Your task to perform on an android device: Open eBay Image 0: 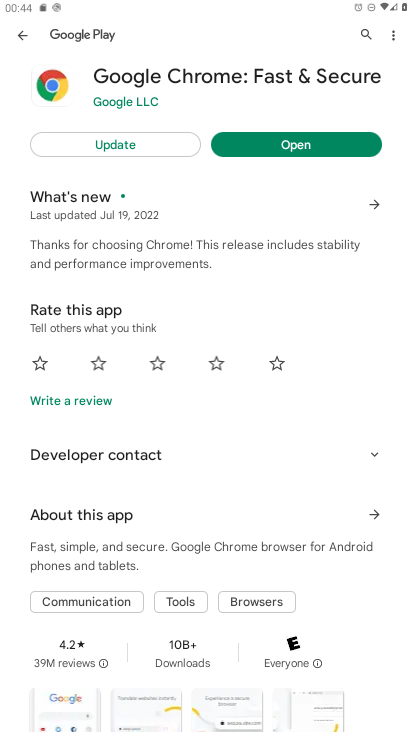
Step 0: press home button
Your task to perform on an android device: Open eBay Image 1: 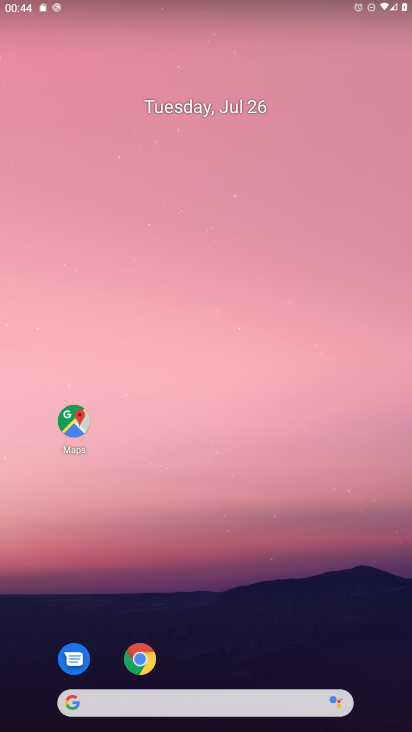
Step 1: click (144, 654)
Your task to perform on an android device: Open eBay Image 2: 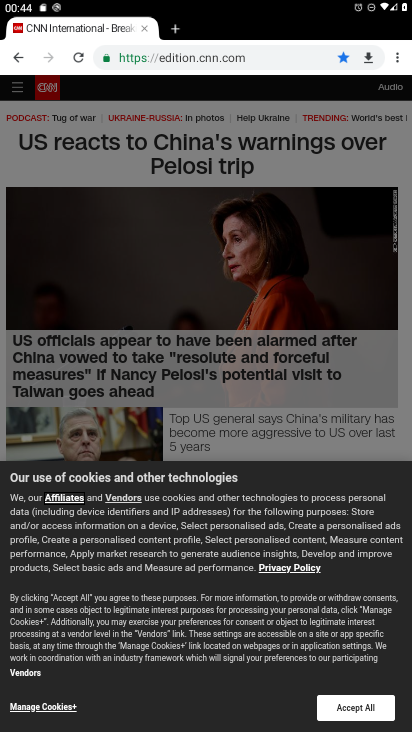
Step 2: click (250, 61)
Your task to perform on an android device: Open eBay Image 3: 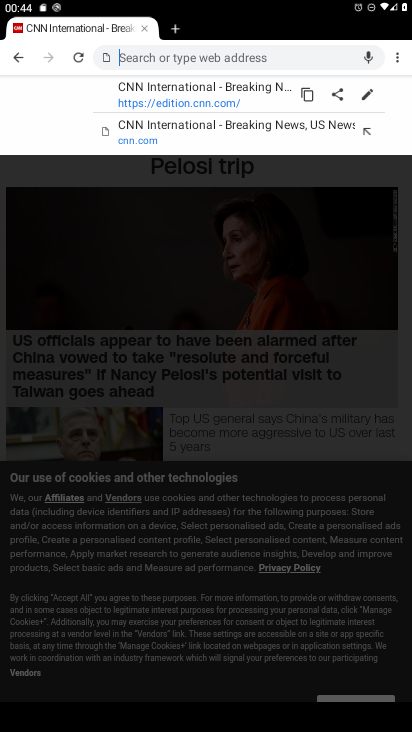
Step 3: type "eBay"
Your task to perform on an android device: Open eBay Image 4: 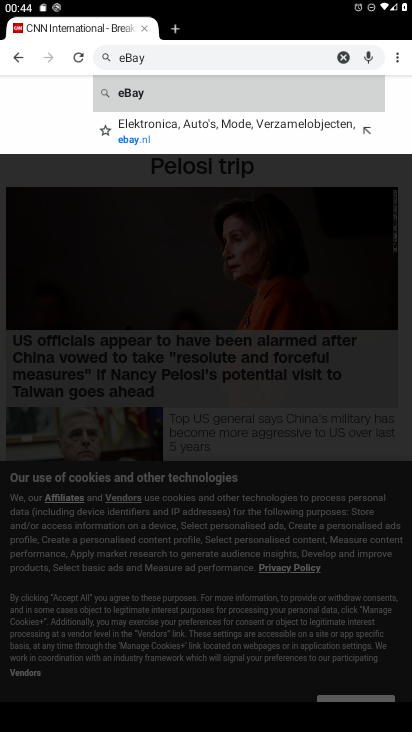
Step 4: click (132, 132)
Your task to perform on an android device: Open eBay Image 5: 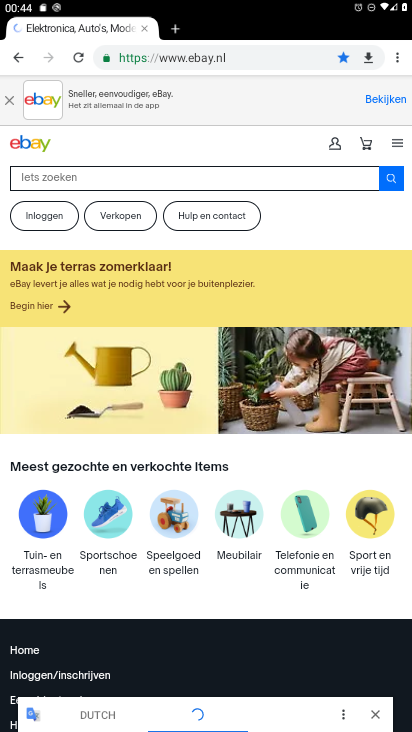
Step 5: task complete